Your task to perform on an android device: Open the web browser Image 0: 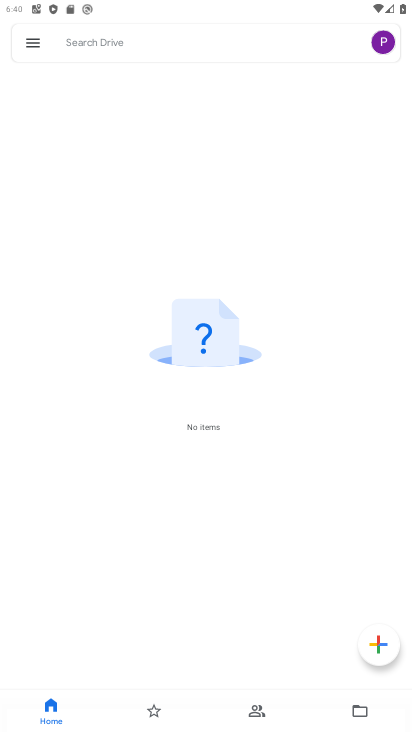
Step 0: press home button
Your task to perform on an android device: Open the web browser Image 1: 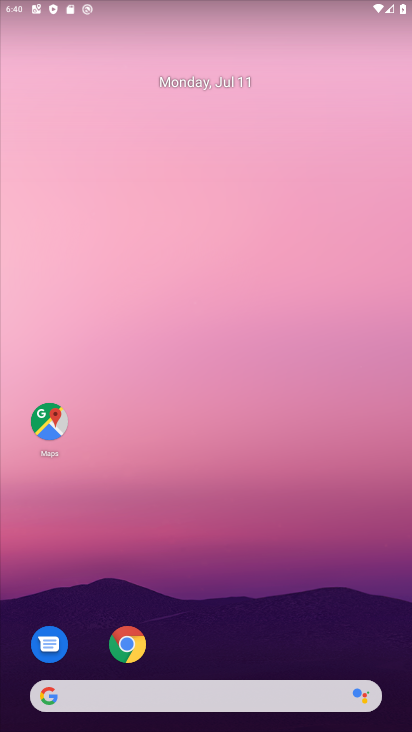
Step 1: drag from (325, 452) to (394, 150)
Your task to perform on an android device: Open the web browser Image 2: 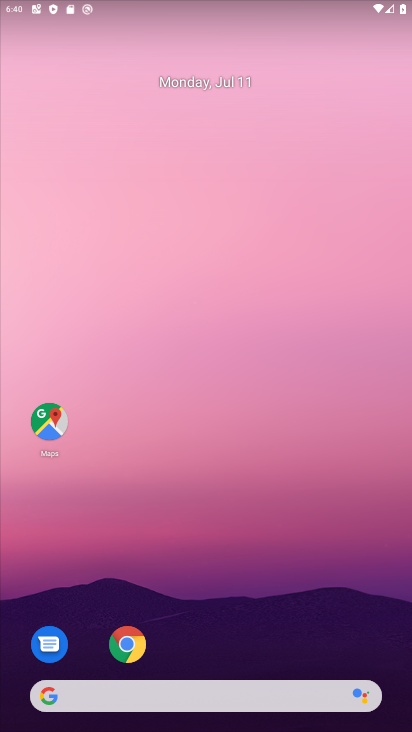
Step 2: drag from (151, 702) to (266, 161)
Your task to perform on an android device: Open the web browser Image 3: 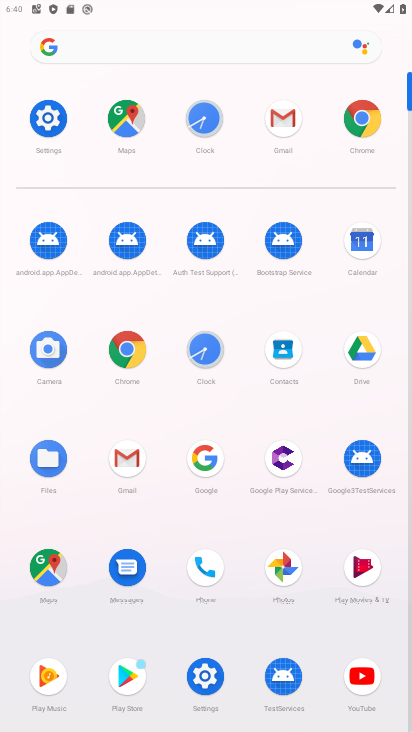
Step 3: click (124, 356)
Your task to perform on an android device: Open the web browser Image 4: 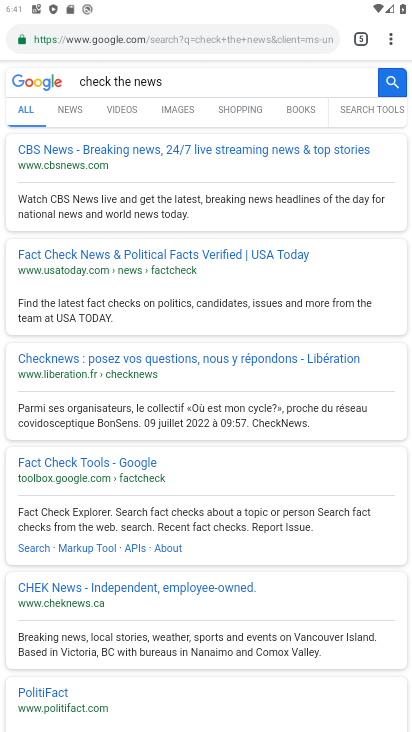
Step 4: task complete